Your task to perform on an android device: Go to Yahoo.com Image 0: 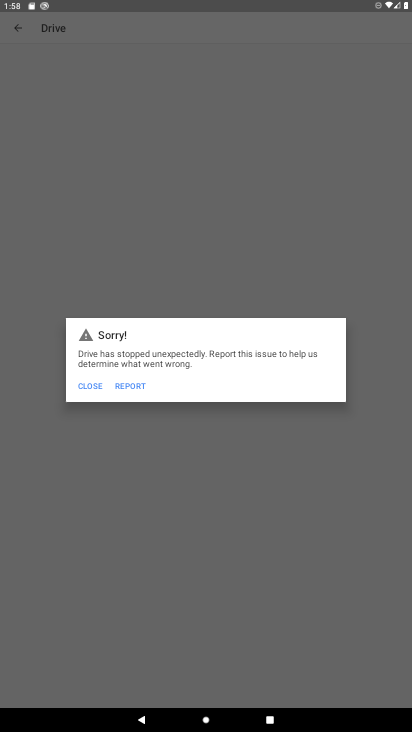
Step 0: press home button
Your task to perform on an android device: Go to Yahoo.com Image 1: 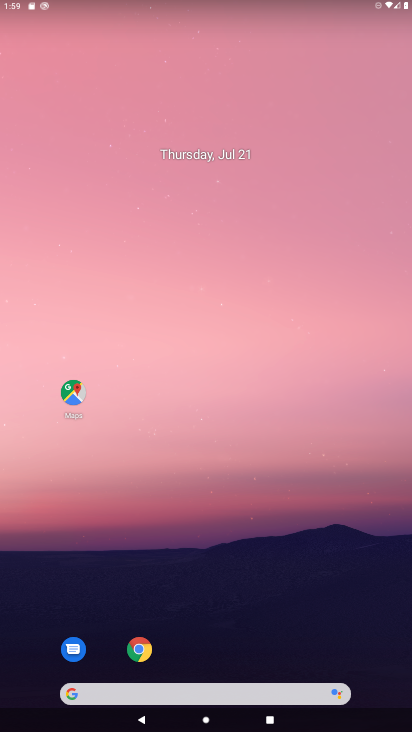
Step 1: drag from (243, 592) to (146, 0)
Your task to perform on an android device: Go to Yahoo.com Image 2: 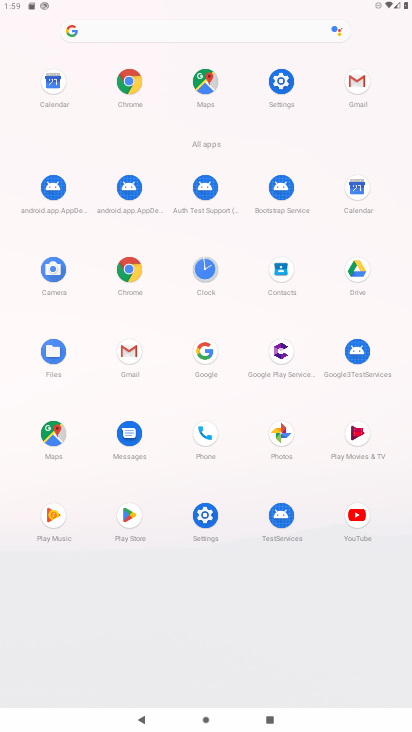
Step 2: click (127, 276)
Your task to perform on an android device: Go to Yahoo.com Image 3: 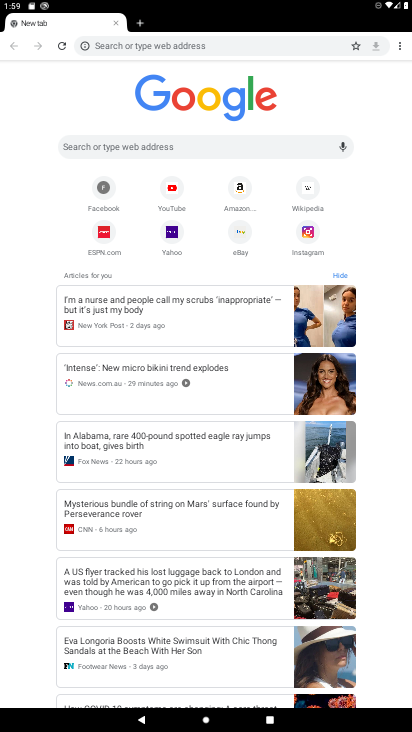
Step 3: click (179, 230)
Your task to perform on an android device: Go to Yahoo.com Image 4: 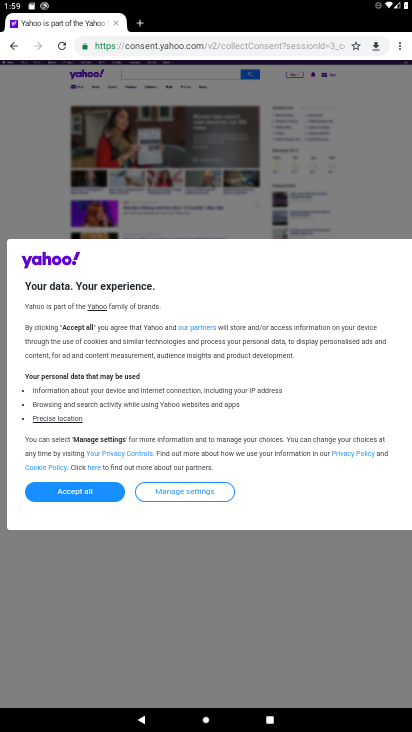
Step 4: task complete